Your task to perform on an android device: turn smart compose on in the gmail app Image 0: 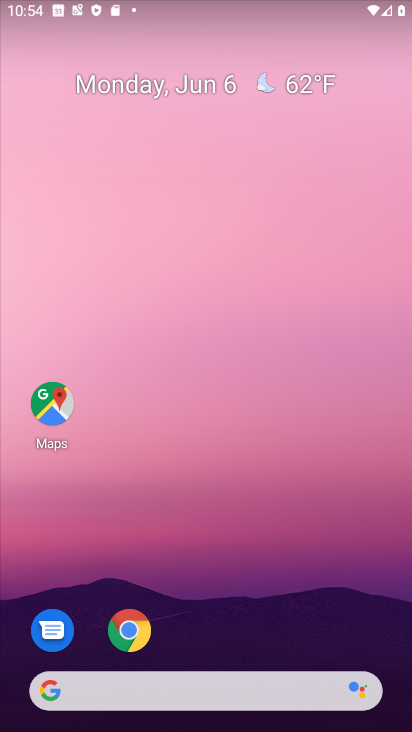
Step 0: drag from (215, 554) to (216, 139)
Your task to perform on an android device: turn smart compose on in the gmail app Image 1: 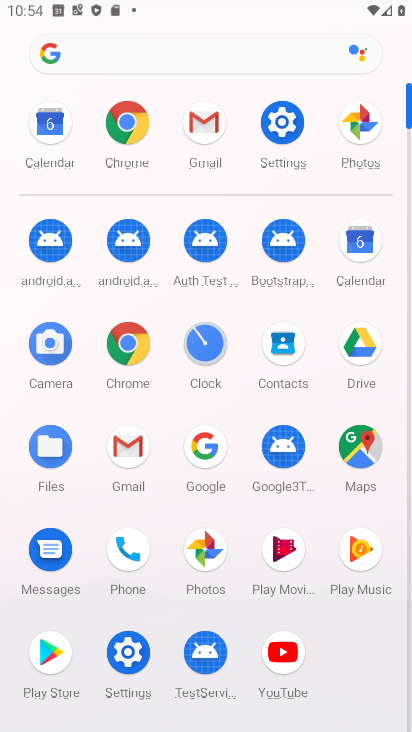
Step 1: click (125, 461)
Your task to perform on an android device: turn smart compose on in the gmail app Image 2: 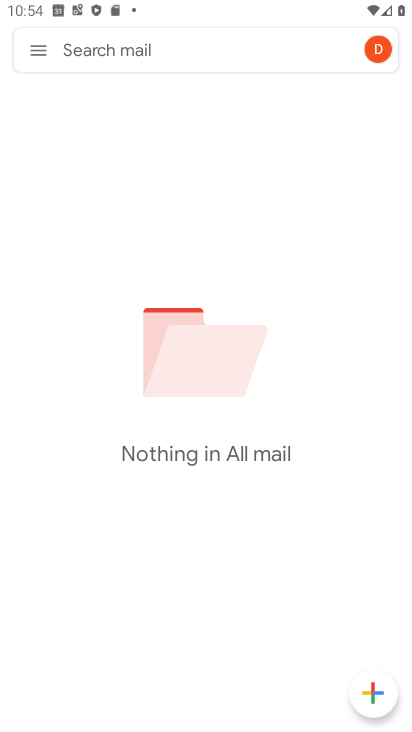
Step 2: click (46, 46)
Your task to perform on an android device: turn smart compose on in the gmail app Image 3: 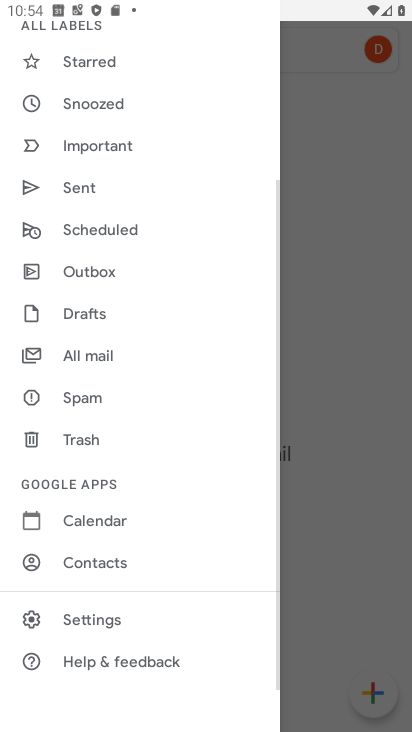
Step 3: click (96, 621)
Your task to perform on an android device: turn smart compose on in the gmail app Image 4: 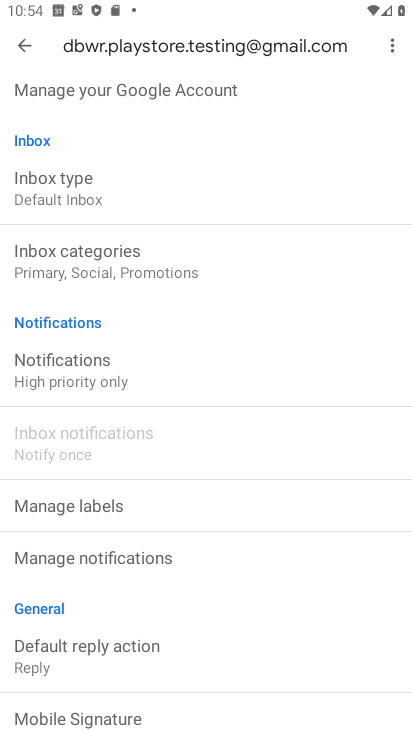
Step 4: task complete